Your task to perform on an android device: Open Chrome and go to settings Image 0: 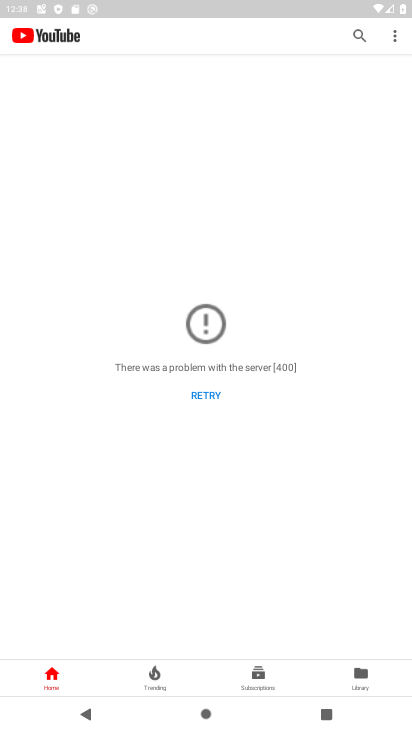
Step 0: press back button
Your task to perform on an android device: Open Chrome and go to settings Image 1: 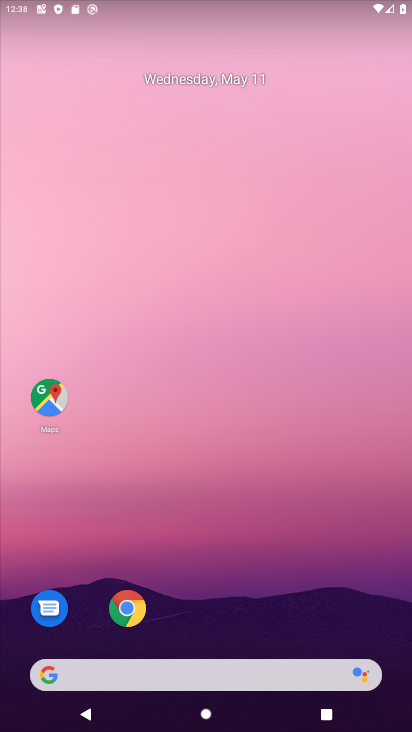
Step 1: click (139, 622)
Your task to perform on an android device: Open Chrome and go to settings Image 2: 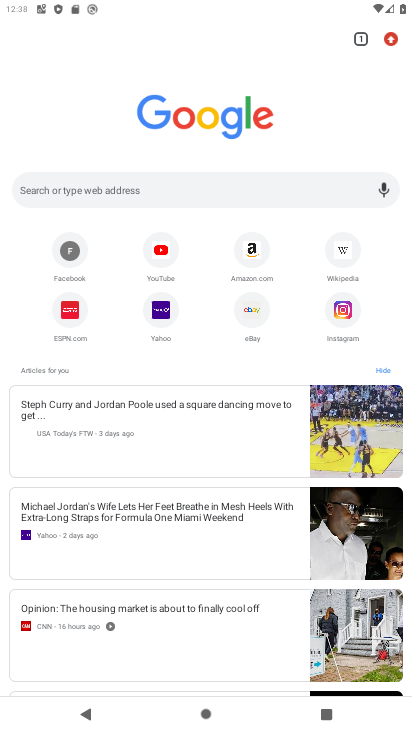
Step 2: task complete